Your task to perform on an android device: find photos in the google photos app Image 0: 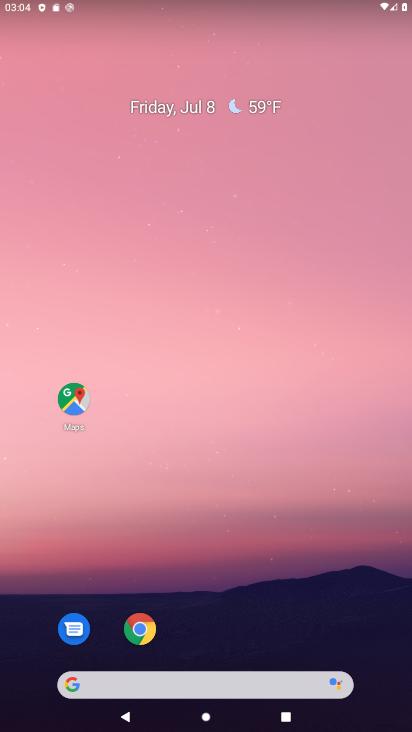
Step 0: drag from (225, 653) to (254, 79)
Your task to perform on an android device: find photos in the google photos app Image 1: 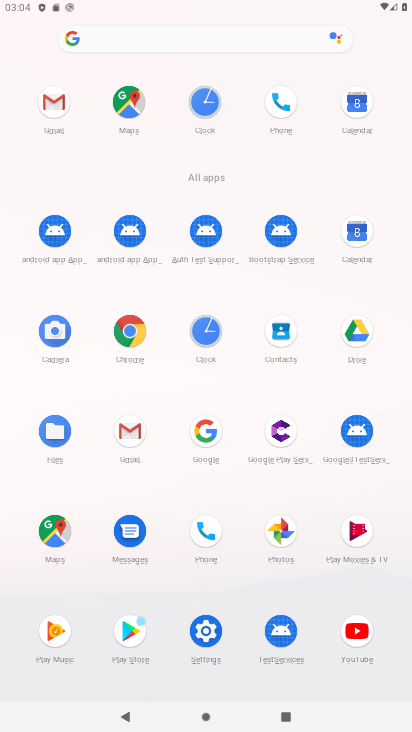
Step 1: click (279, 517)
Your task to perform on an android device: find photos in the google photos app Image 2: 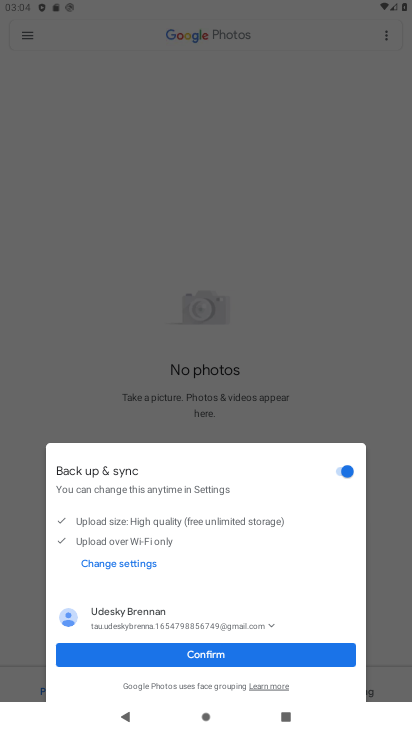
Step 2: click (210, 655)
Your task to perform on an android device: find photos in the google photos app Image 3: 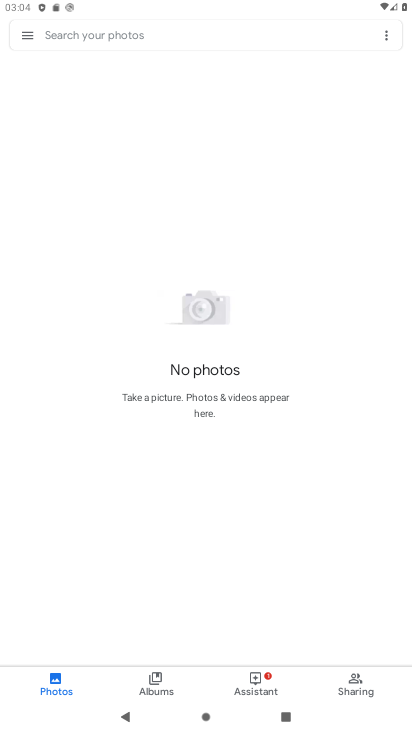
Step 3: task complete